Your task to perform on an android device: Search for seafood restaurants on Google Maps Image 0: 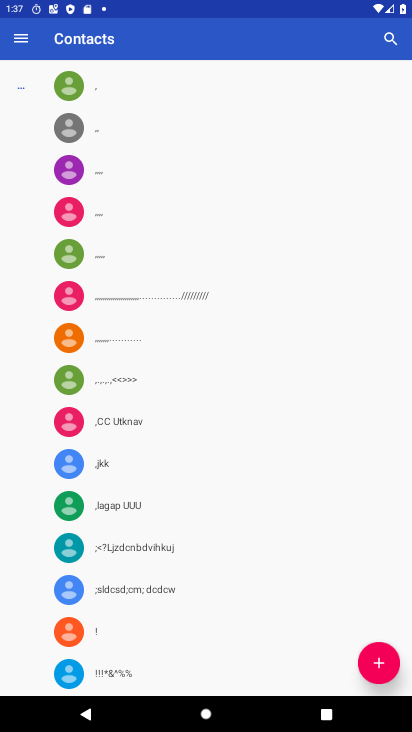
Step 0: press home button
Your task to perform on an android device: Search for seafood restaurants on Google Maps Image 1: 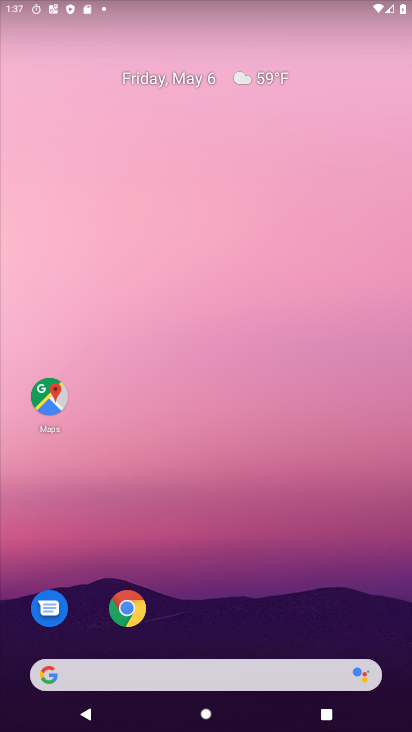
Step 1: click (50, 394)
Your task to perform on an android device: Search for seafood restaurants on Google Maps Image 2: 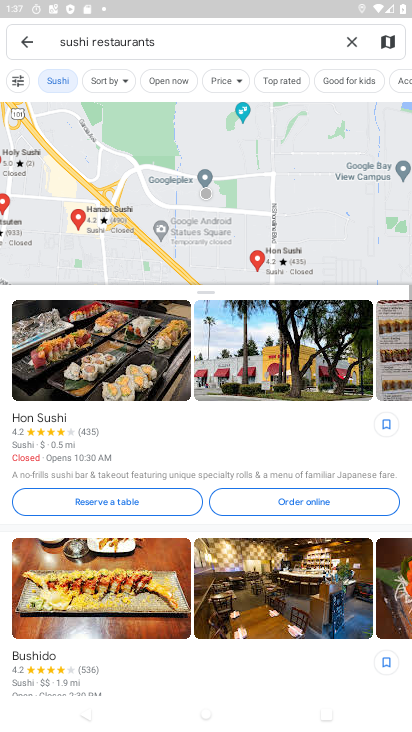
Step 2: click (310, 41)
Your task to perform on an android device: Search for seafood restaurants on Google Maps Image 3: 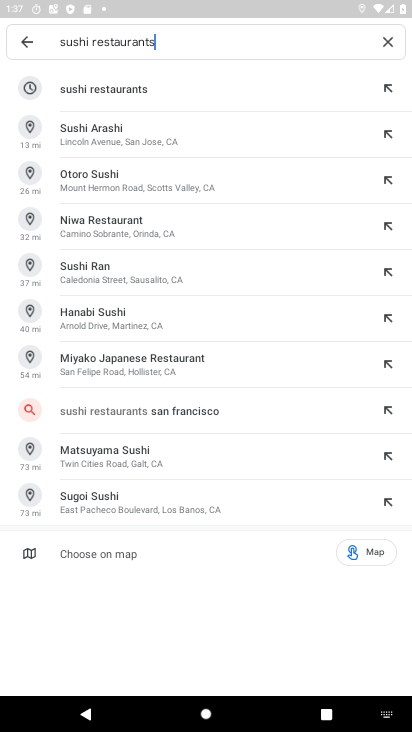
Step 3: click (381, 42)
Your task to perform on an android device: Search for seafood restaurants on Google Maps Image 4: 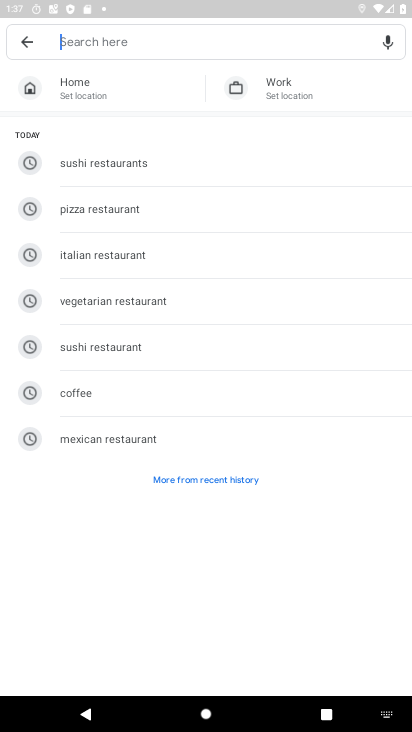
Step 4: type "seafood restaurants"
Your task to perform on an android device: Search for seafood restaurants on Google Maps Image 5: 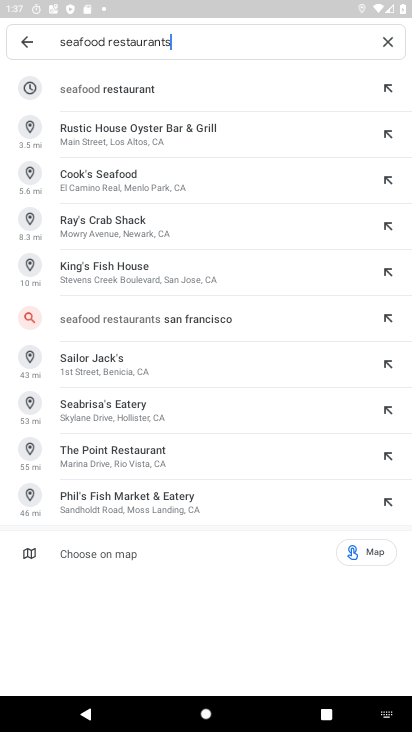
Step 5: click (126, 92)
Your task to perform on an android device: Search for seafood restaurants on Google Maps Image 6: 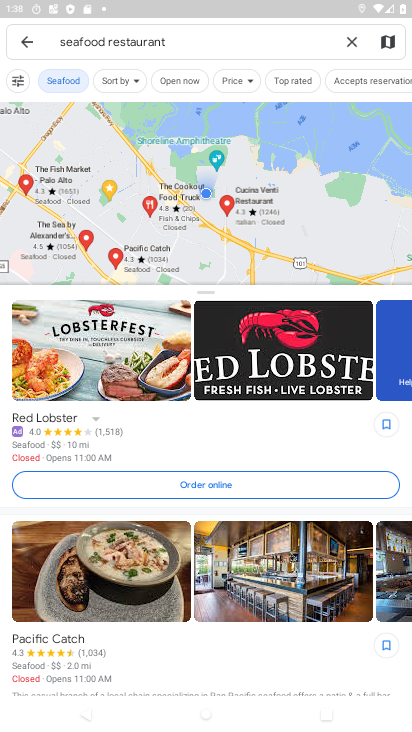
Step 6: task complete